Your task to perform on an android device: show emergency info Image 0: 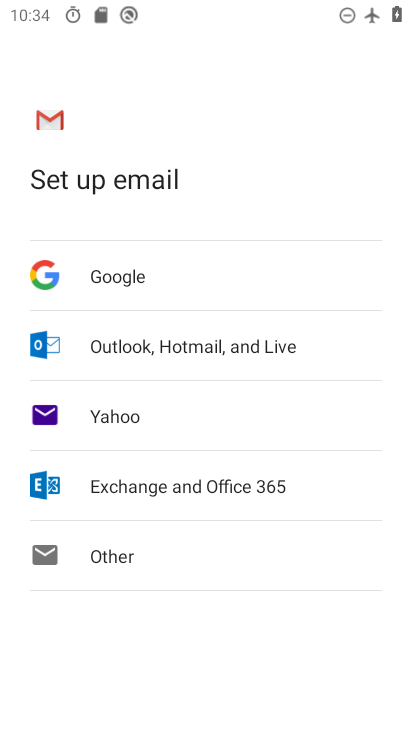
Step 0: press home button
Your task to perform on an android device: show emergency info Image 1: 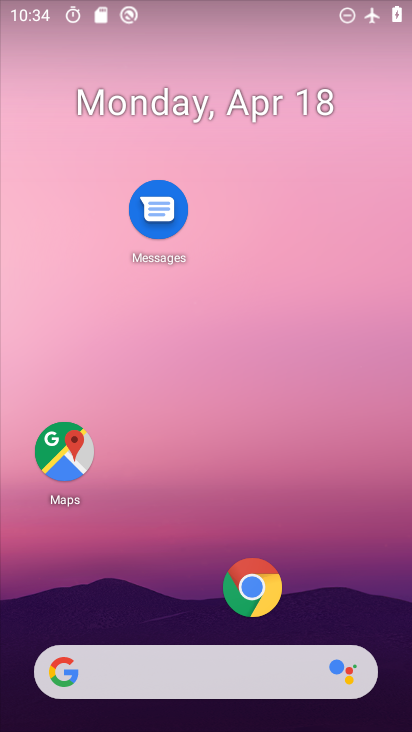
Step 1: drag from (204, 588) to (289, 63)
Your task to perform on an android device: show emergency info Image 2: 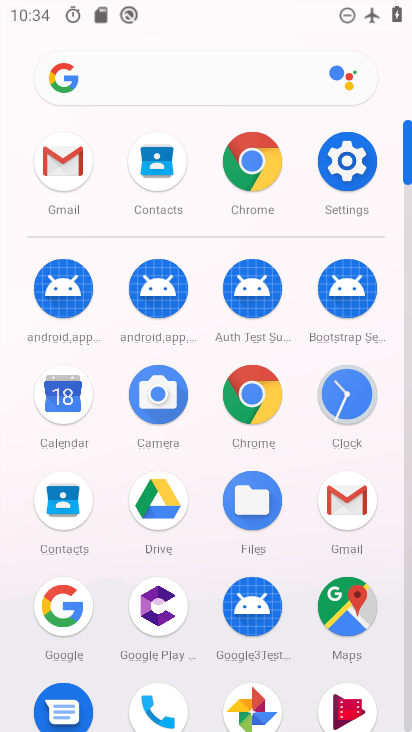
Step 2: click (355, 178)
Your task to perform on an android device: show emergency info Image 3: 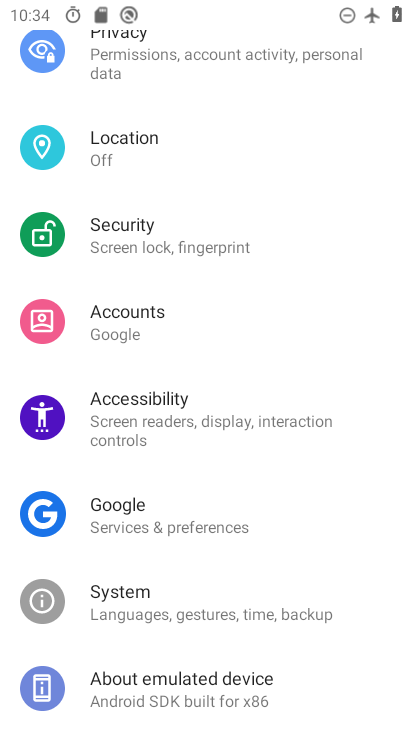
Step 3: drag from (204, 566) to (249, 279)
Your task to perform on an android device: show emergency info Image 4: 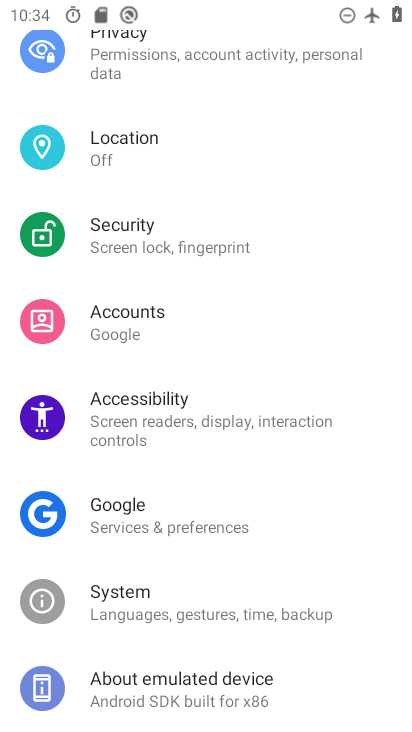
Step 4: click (150, 684)
Your task to perform on an android device: show emergency info Image 5: 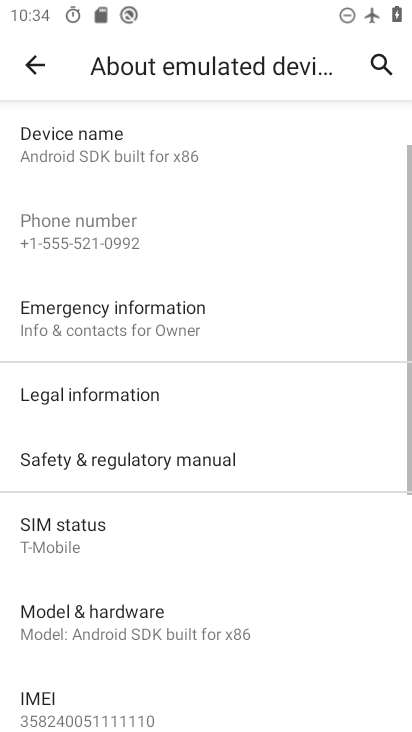
Step 5: click (148, 317)
Your task to perform on an android device: show emergency info Image 6: 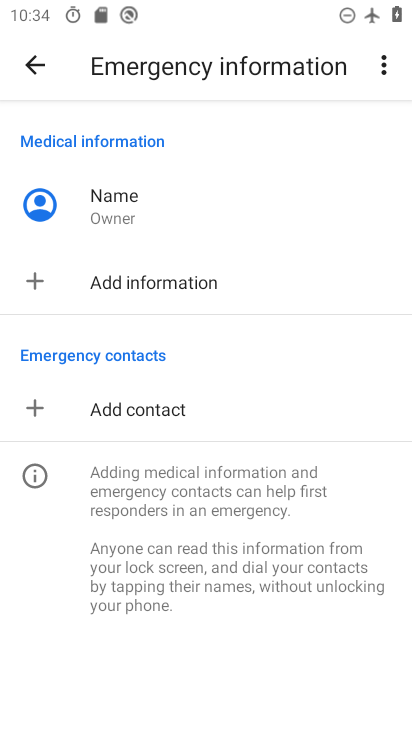
Step 6: task complete